Your task to perform on an android device: What's the weather going to be tomorrow? Image 0: 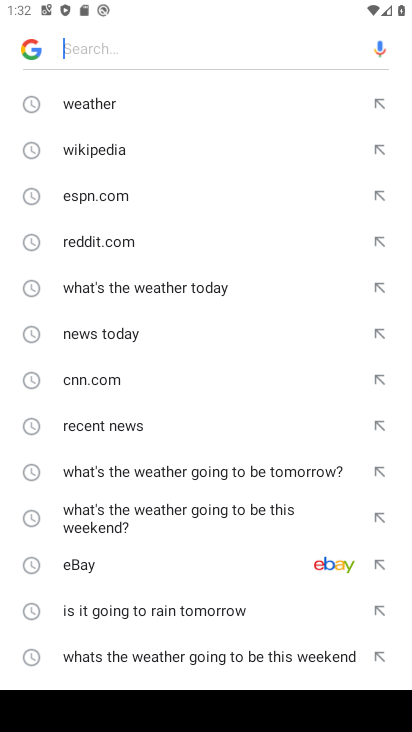
Step 0: click (88, 100)
Your task to perform on an android device: What's the weather going to be tomorrow? Image 1: 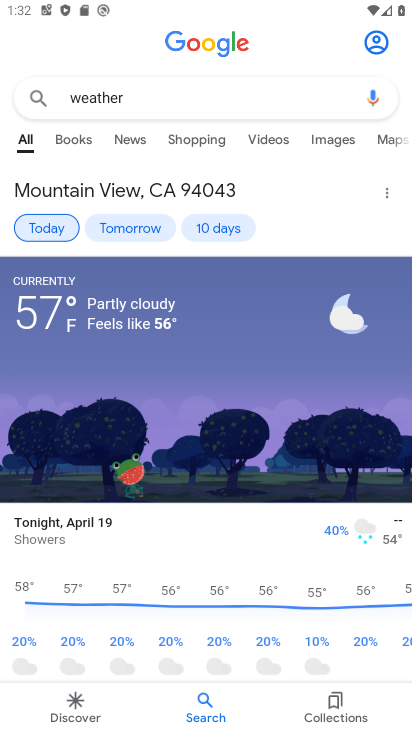
Step 1: click (147, 221)
Your task to perform on an android device: What's the weather going to be tomorrow? Image 2: 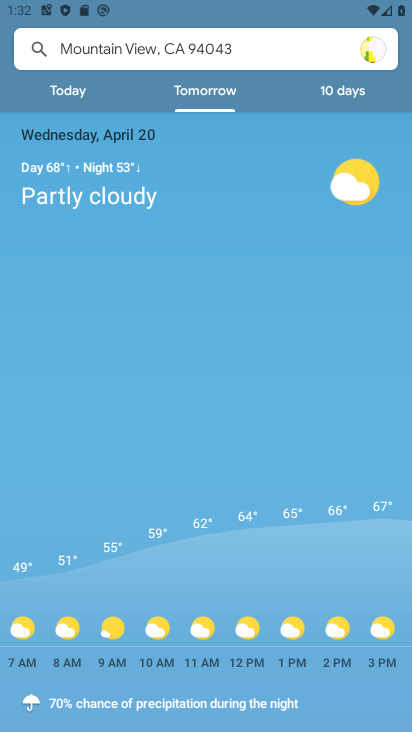
Step 2: click (147, 221)
Your task to perform on an android device: What's the weather going to be tomorrow? Image 3: 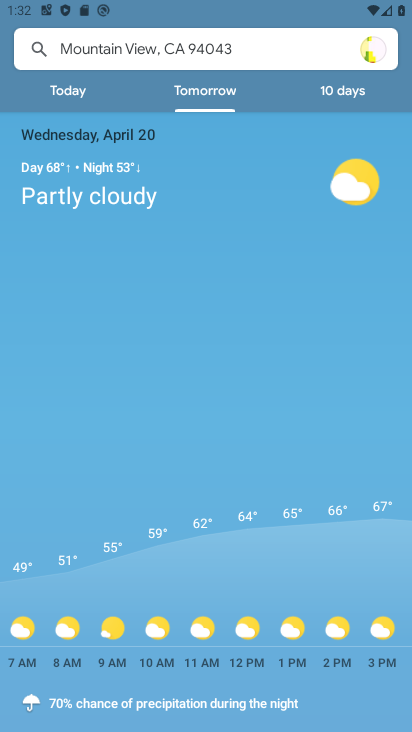
Step 3: task complete